Your task to perform on an android device: turn on location history Image 0: 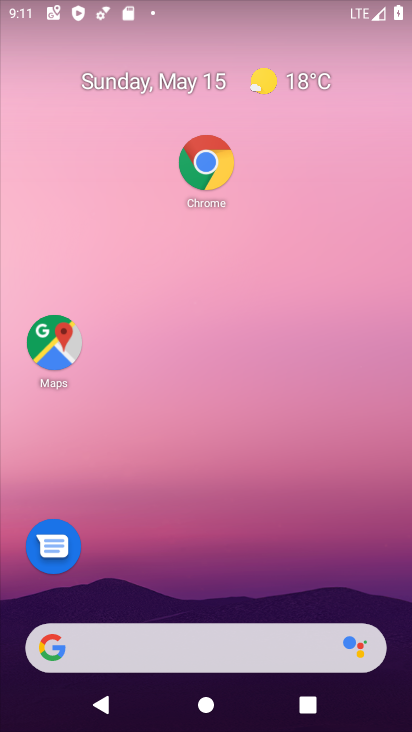
Step 0: drag from (239, 567) to (285, 241)
Your task to perform on an android device: turn on location history Image 1: 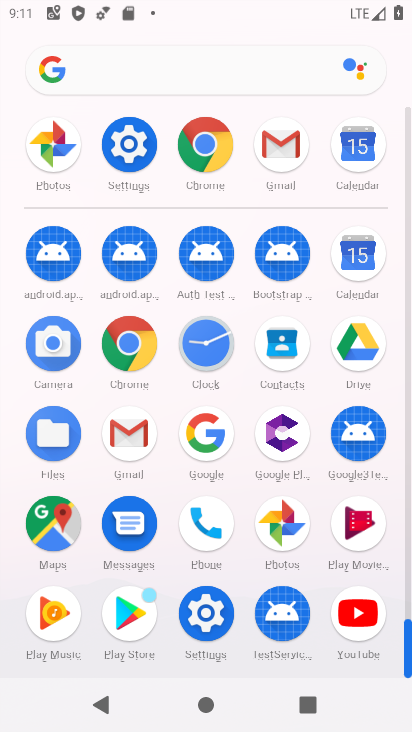
Step 1: click (129, 132)
Your task to perform on an android device: turn on location history Image 2: 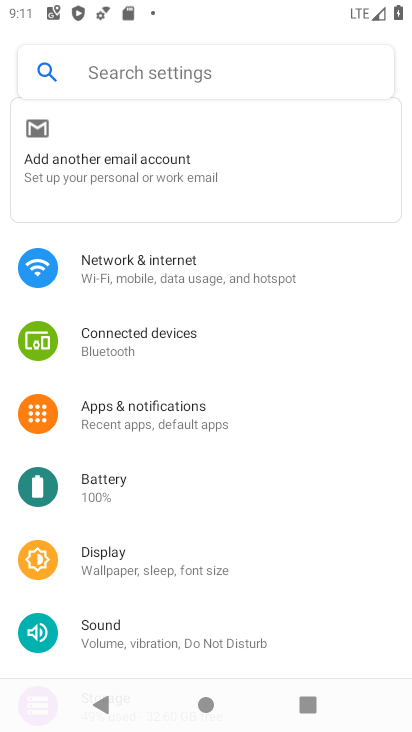
Step 2: drag from (256, 574) to (297, 355)
Your task to perform on an android device: turn on location history Image 3: 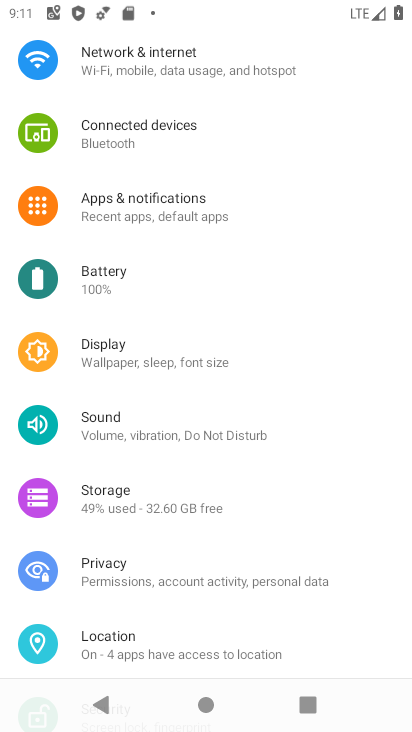
Step 3: click (153, 637)
Your task to perform on an android device: turn on location history Image 4: 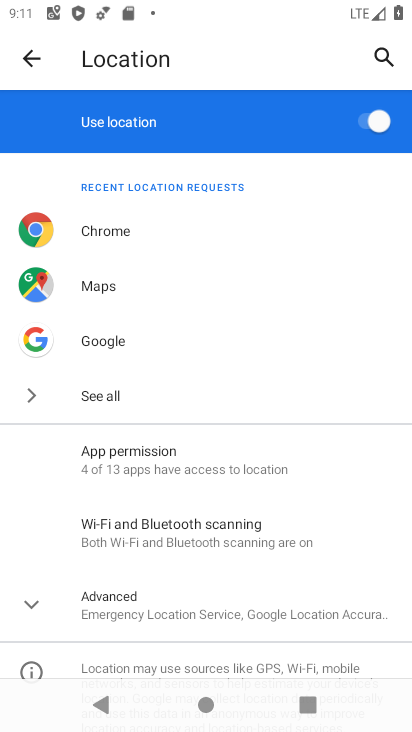
Step 4: drag from (171, 591) to (252, 395)
Your task to perform on an android device: turn on location history Image 5: 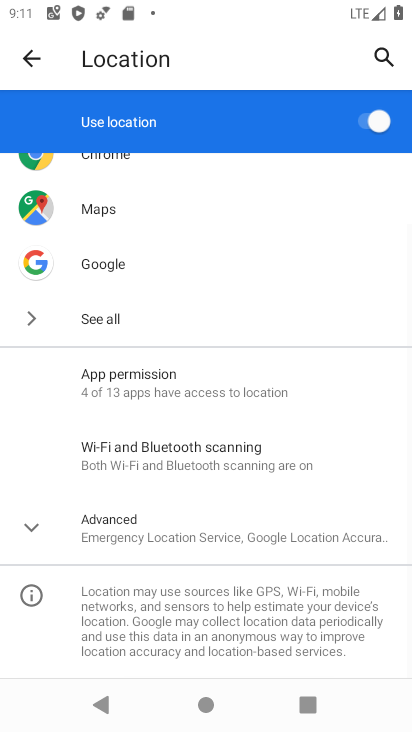
Step 5: click (144, 525)
Your task to perform on an android device: turn on location history Image 6: 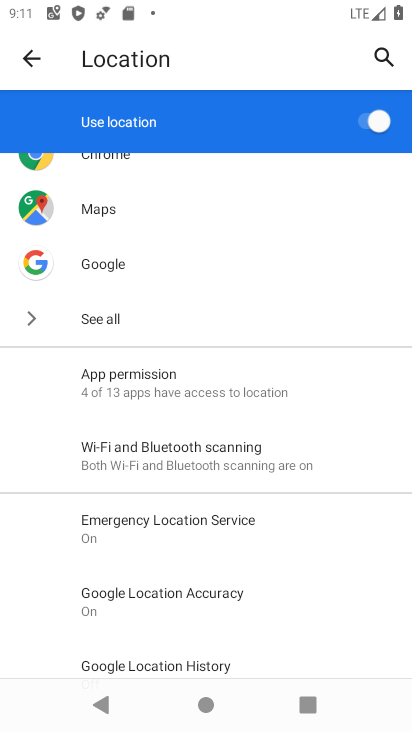
Step 6: drag from (220, 597) to (245, 339)
Your task to perform on an android device: turn on location history Image 7: 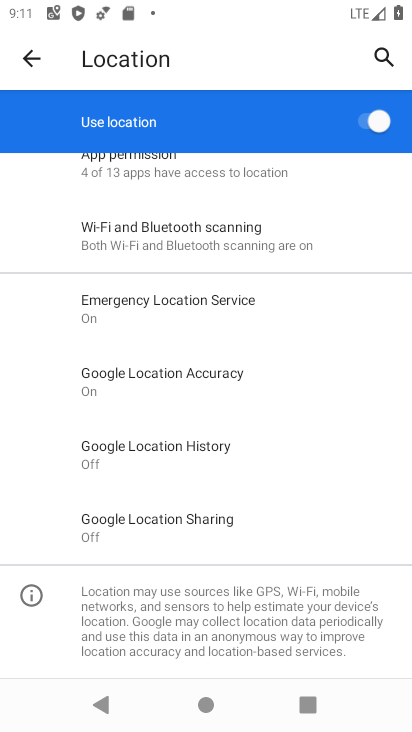
Step 7: click (163, 449)
Your task to perform on an android device: turn on location history Image 8: 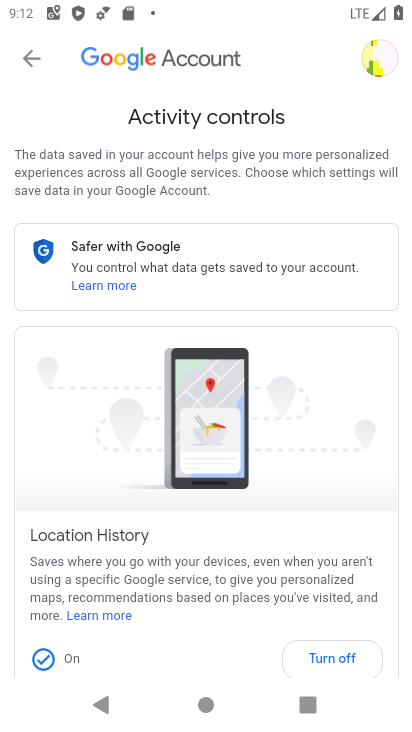
Step 8: click (324, 667)
Your task to perform on an android device: turn on location history Image 9: 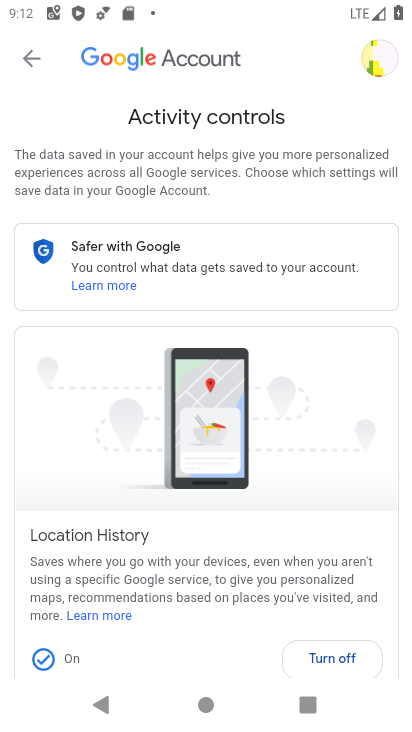
Step 9: click (331, 656)
Your task to perform on an android device: turn on location history Image 10: 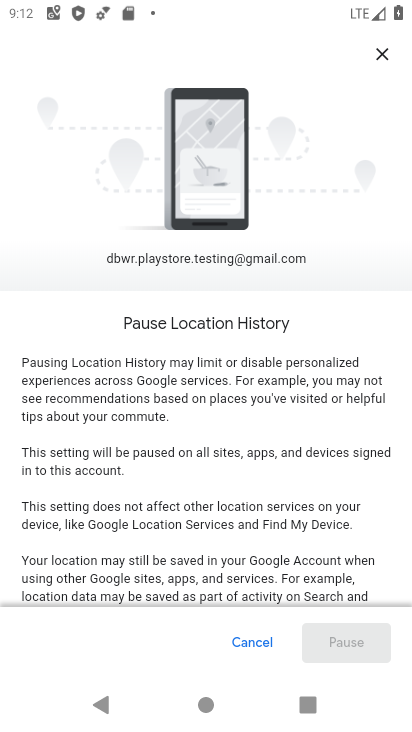
Step 10: task complete